Your task to perform on an android device: star an email in the gmail app Image 0: 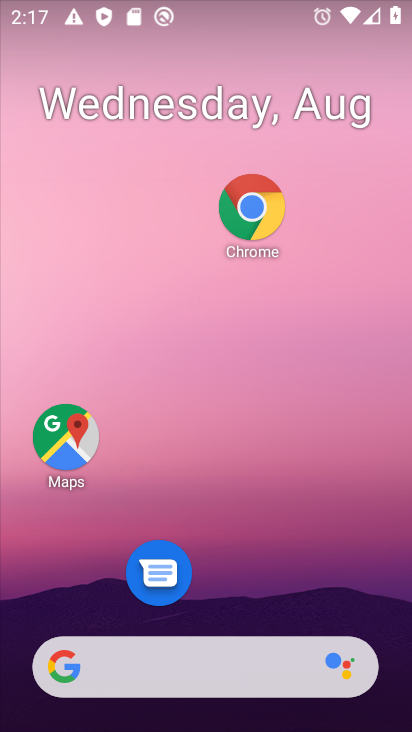
Step 0: drag from (297, 618) to (295, 222)
Your task to perform on an android device: star an email in the gmail app Image 1: 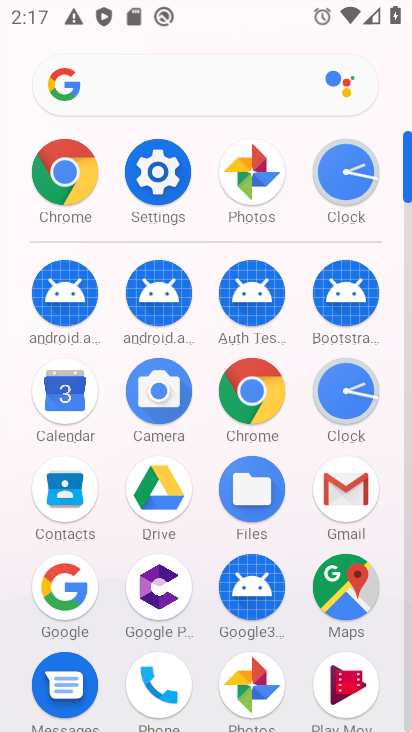
Step 1: click (354, 507)
Your task to perform on an android device: star an email in the gmail app Image 2: 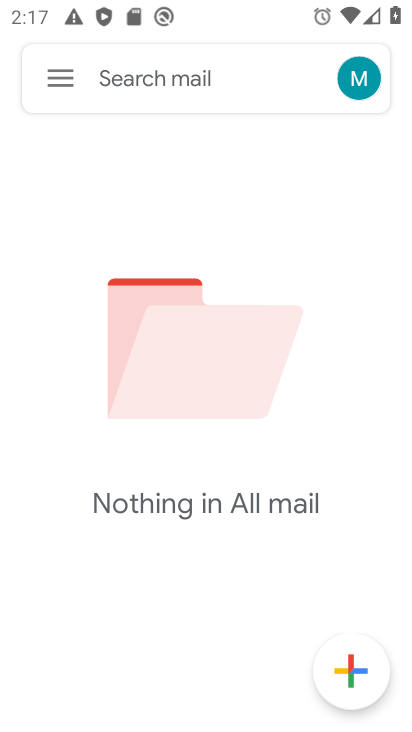
Step 2: task complete